Your task to perform on an android device: Open CNN.com Image 0: 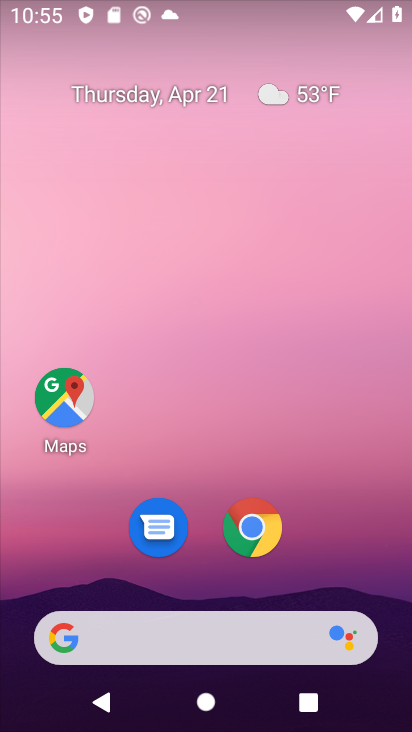
Step 0: drag from (351, 531) to (356, 153)
Your task to perform on an android device: Open CNN.com Image 1: 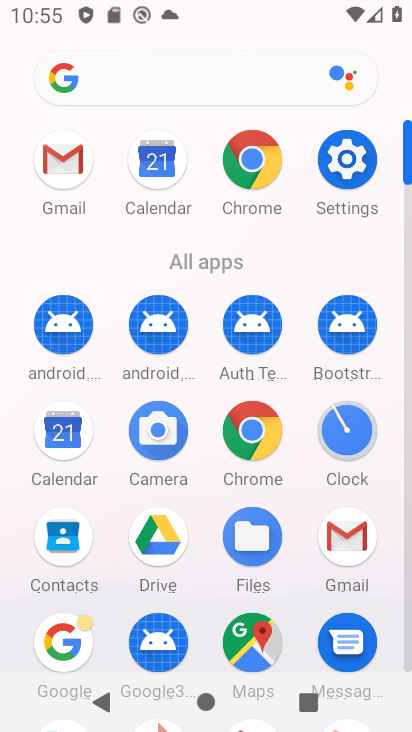
Step 1: click (264, 172)
Your task to perform on an android device: Open CNN.com Image 2: 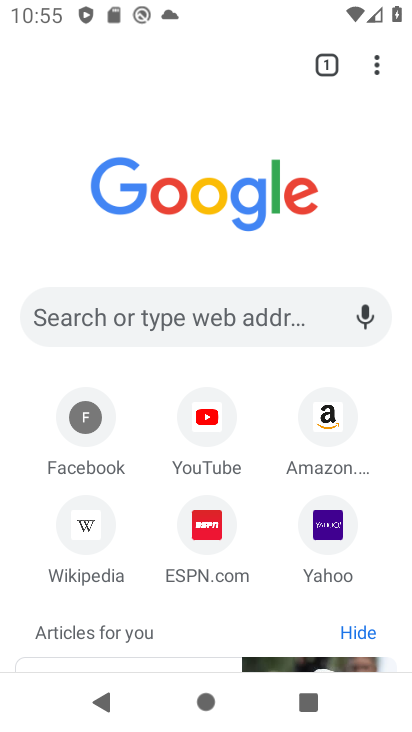
Step 2: click (234, 316)
Your task to perform on an android device: Open CNN.com Image 3: 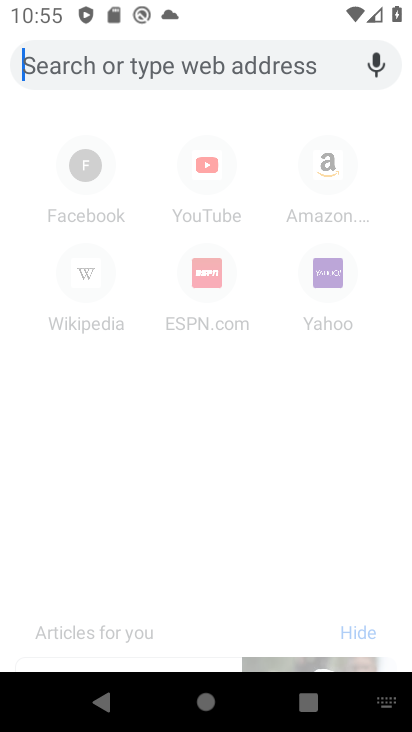
Step 3: type "cnn.com"
Your task to perform on an android device: Open CNN.com Image 4: 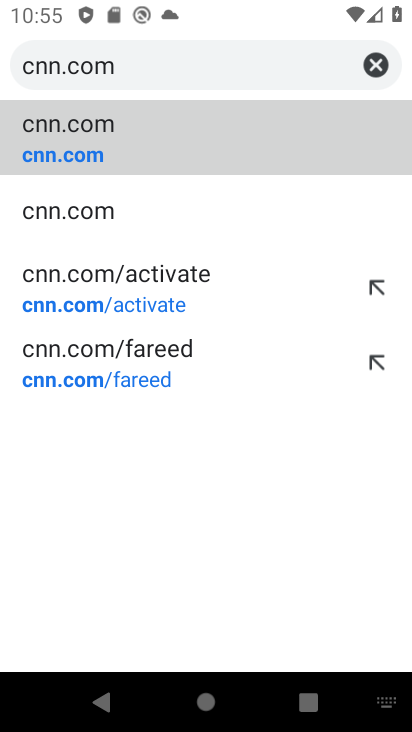
Step 4: click (99, 141)
Your task to perform on an android device: Open CNN.com Image 5: 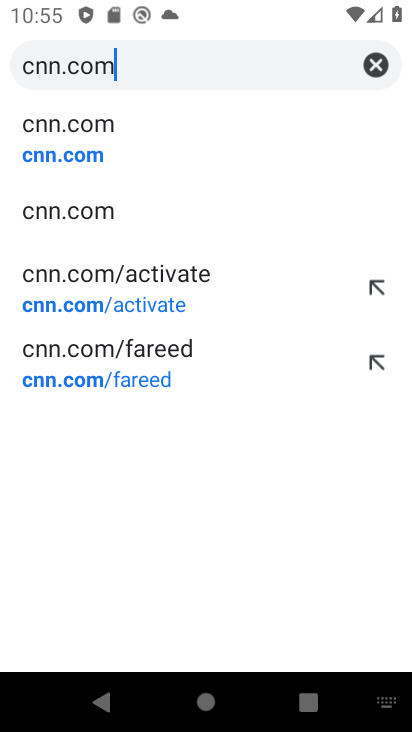
Step 5: click (69, 205)
Your task to perform on an android device: Open CNN.com Image 6: 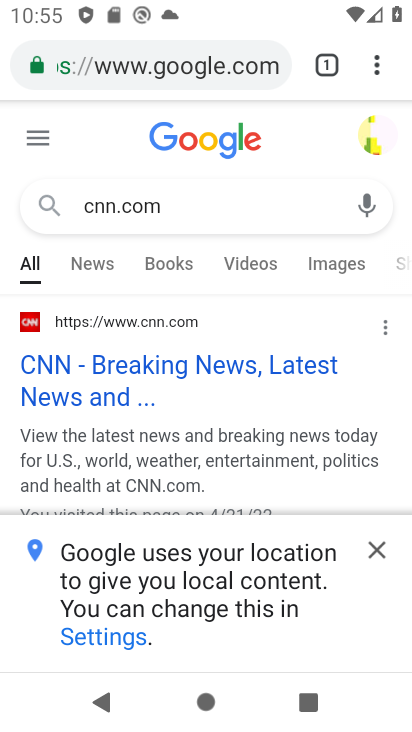
Step 6: task complete